Your task to perform on an android device: turn pop-ups on in chrome Image 0: 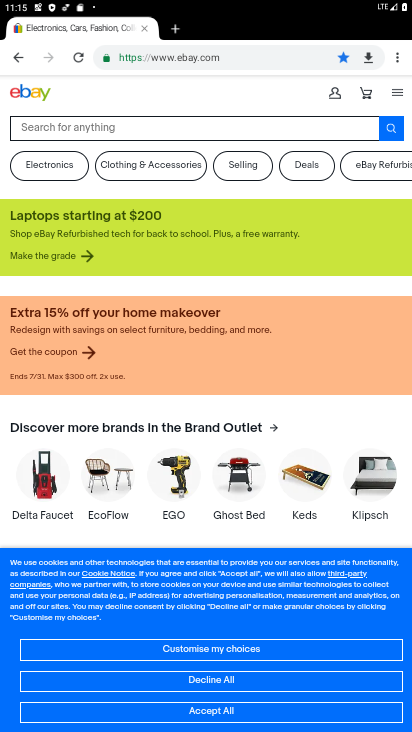
Step 0: click (393, 60)
Your task to perform on an android device: turn pop-ups on in chrome Image 1: 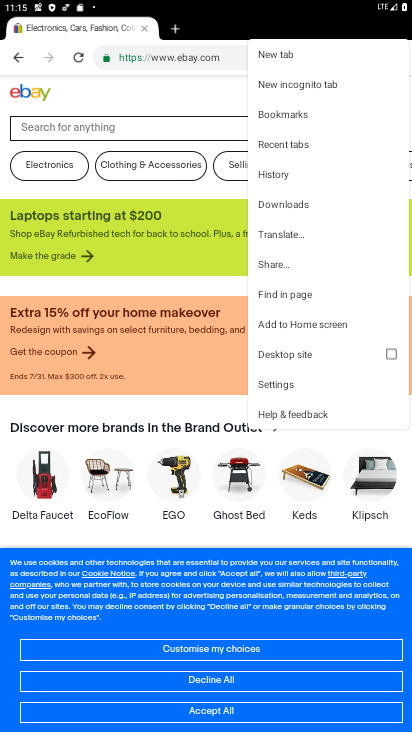
Step 1: click (295, 388)
Your task to perform on an android device: turn pop-ups on in chrome Image 2: 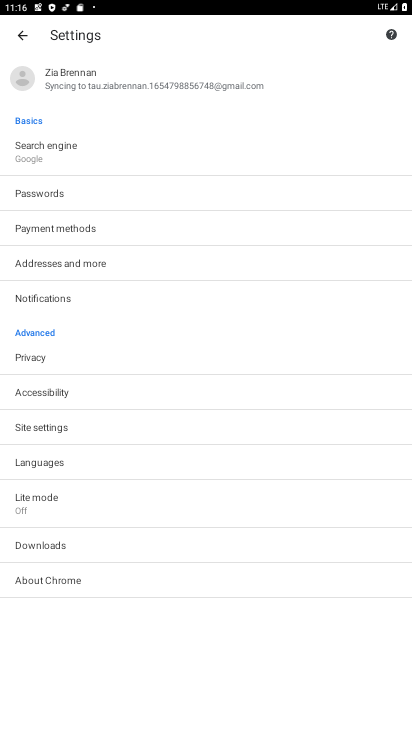
Step 2: click (99, 431)
Your task to perform on an android device: turn pop-ups on in chrome Image 3: 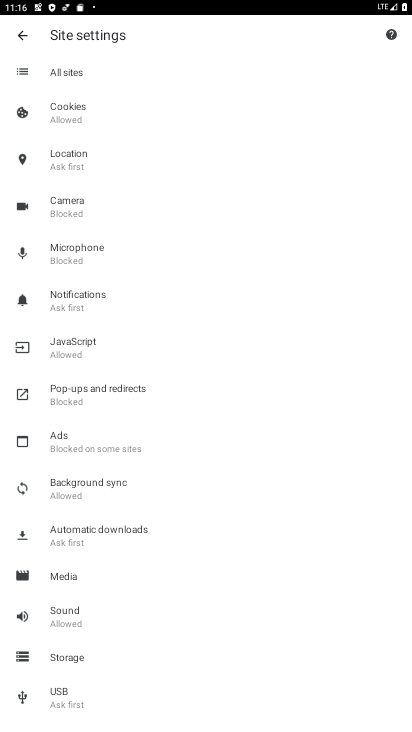
Step 3: click (109, 398)
Your task to perform on an android device: turn pop-ups on in chrome Image 4: 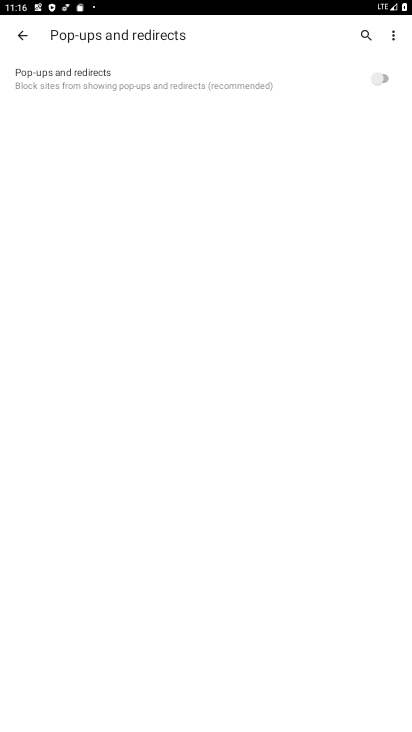
Step 4: click (361, 97)
Your task to perform on an android device: turn pop-ups on in chrome Image 5: 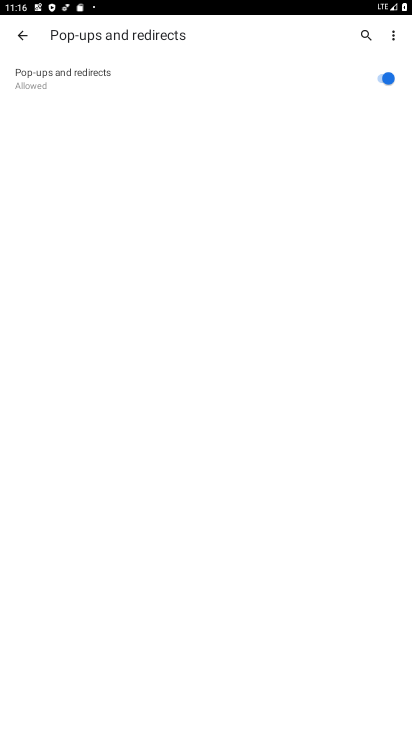
Step 5: task complete